Your task to perform on an android device: check battery use Image 0: 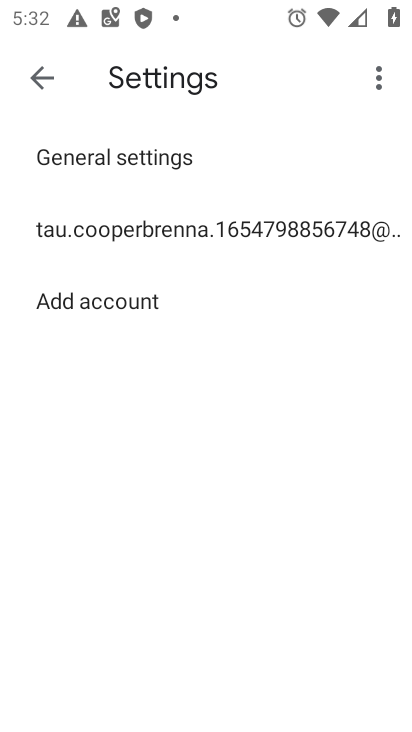
Step 0: press home button
Your task to perform on an android device: check battery use Image 1: 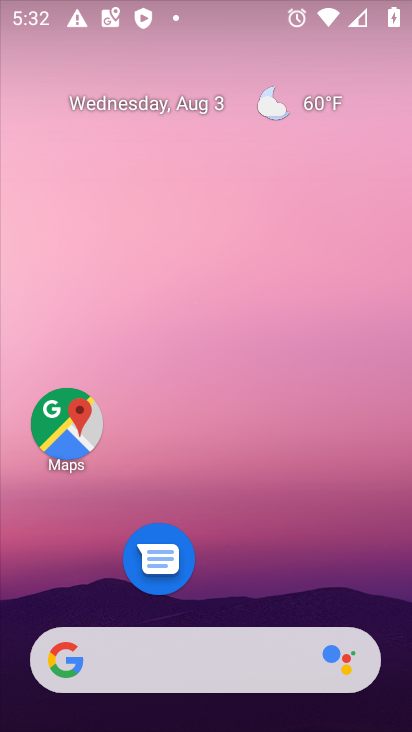
Step 1: drag from (206, 649) to (280, 59)
Your task to perform on an android device: check battery use Image 2: 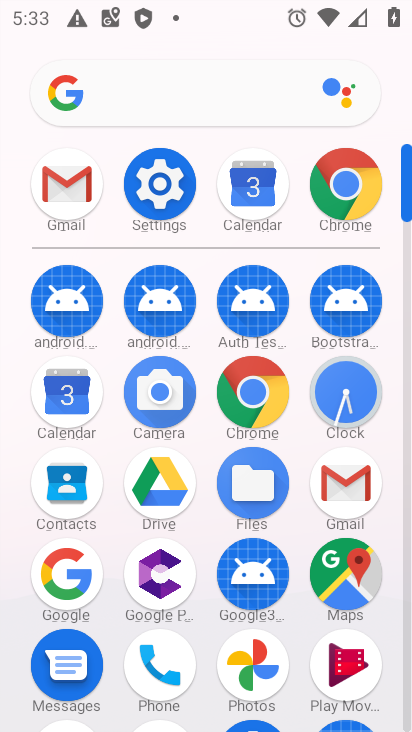
Step 2: click (166, 196)
Your task to perform on an android device: check battery use Image 3: 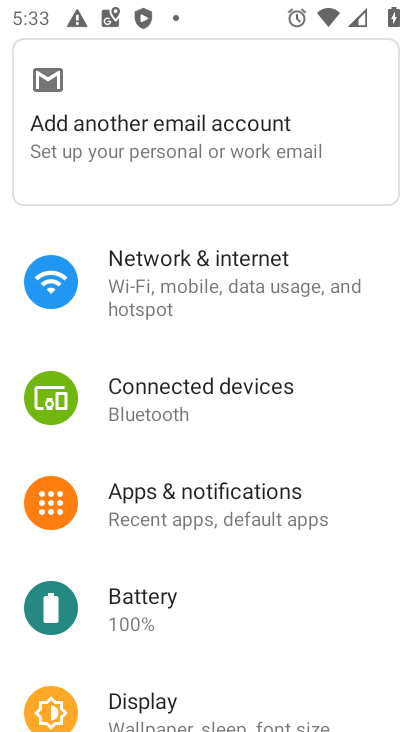
Step 3: click (172, 614)
Your task to perform on an android device: check battery use Image 4: 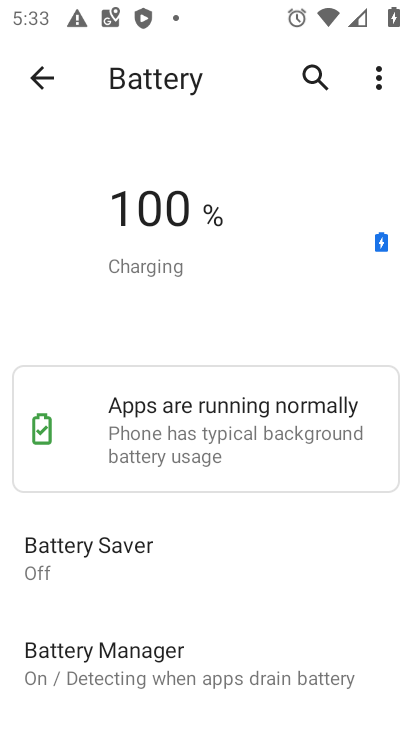
Step 4: task complete